Your task to perform on an android device: Open Chrome and go to settings Image 0: 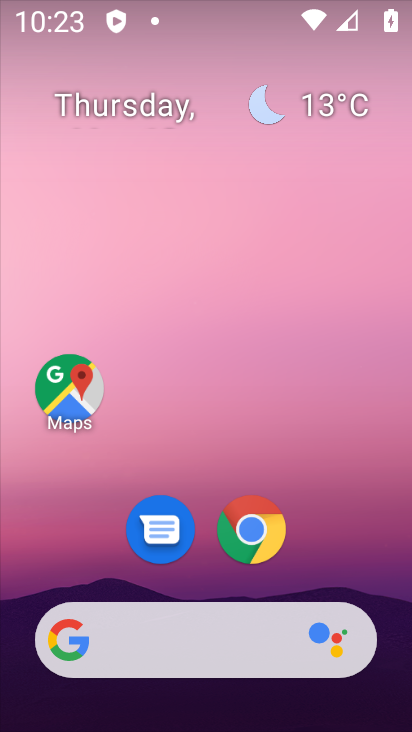
Step 0: click (252, 534)
Your task to perform on an android device: Open Chrome and go to settings Image 1: 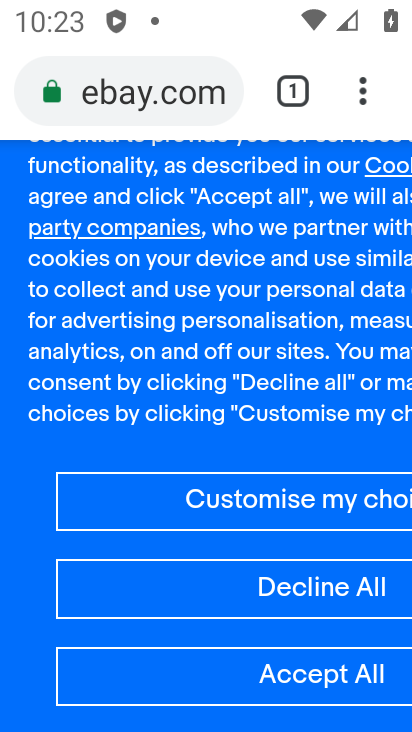
Step 1: click (364, 94)
Your task to perform on an android device: Open Chrome and go to settings Image 2: 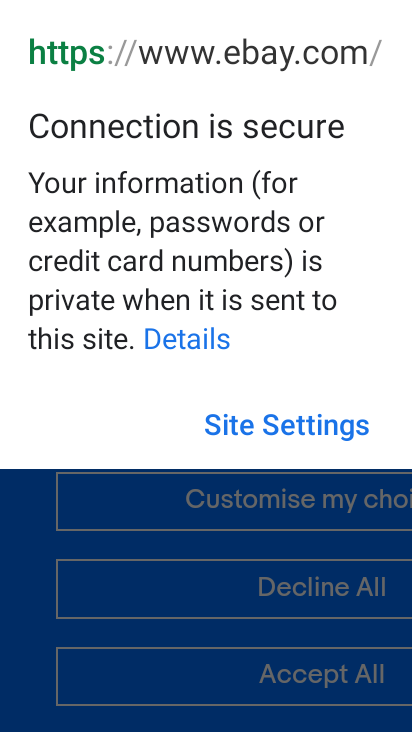
Step 2: click (222, 582)
Your task to perform on an android device: Open Chrome and go to settings Image 3: 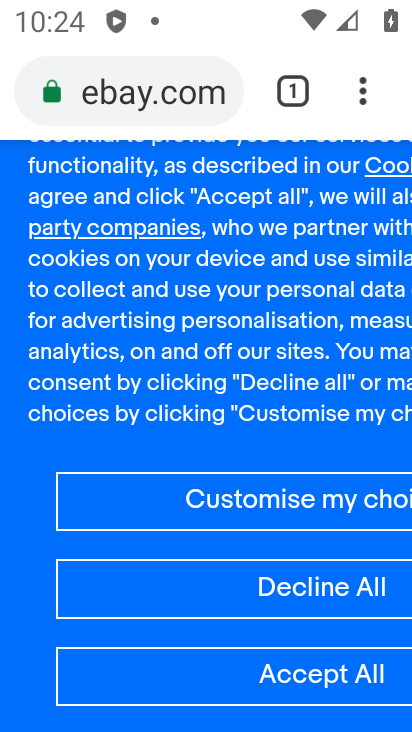
Step 3: click (354, 105)
Your task to perform on an android device: Open Chrome and go to settings Image 4: 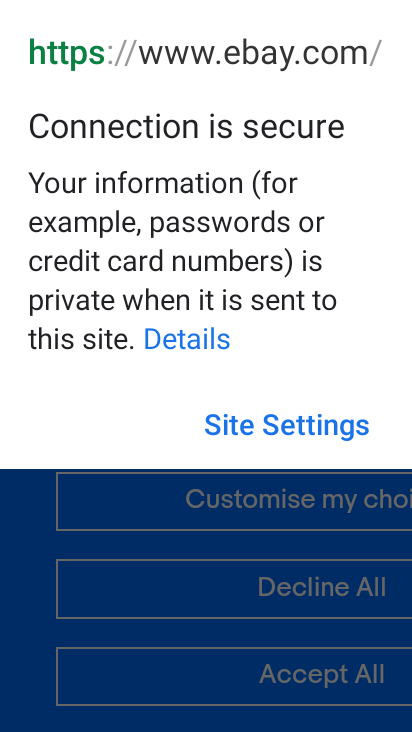
Step 4: click (162, 563)
Your task to perform on an android device: Open Chrome and go to settings Image 5: 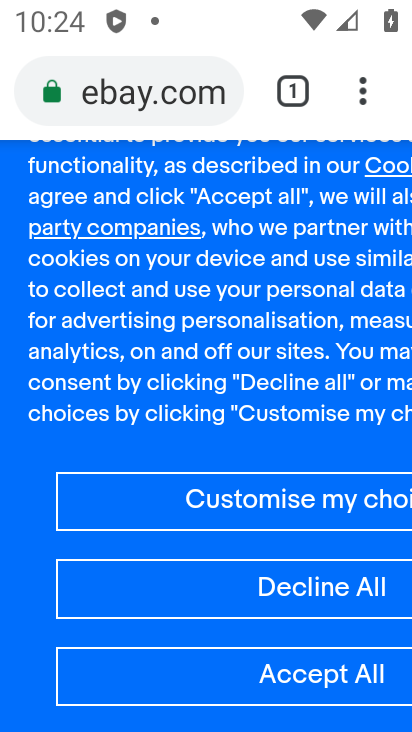
Step 5: click (357, 91)
Your task to perform on an android device: Open Chrome and go to settings Image 6: 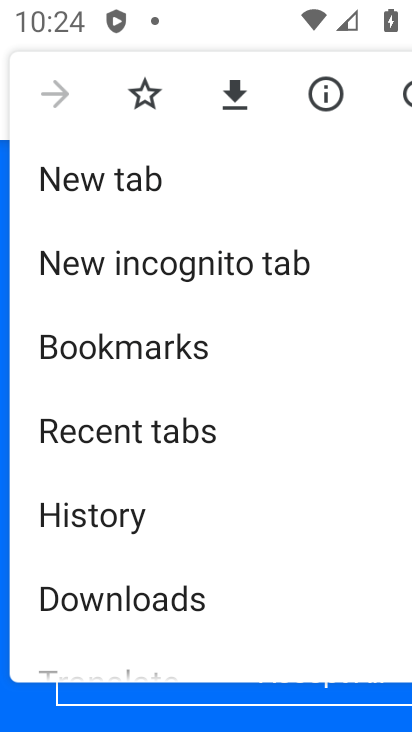
Step 6: drag from (169, 613) to (159, 531)
Your task to perform on an android device: Open Chrome and go to settings Image 7: 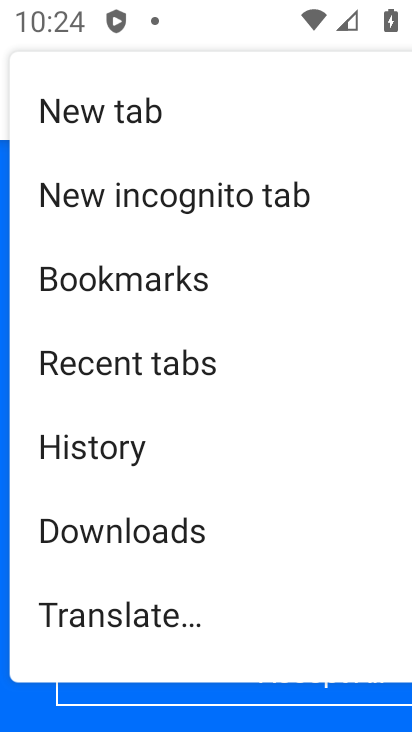
Step 7: drag from (141, 609) to (139, 542)
Your task to perform on an android device: Open Chrome and go to settings Image 8: 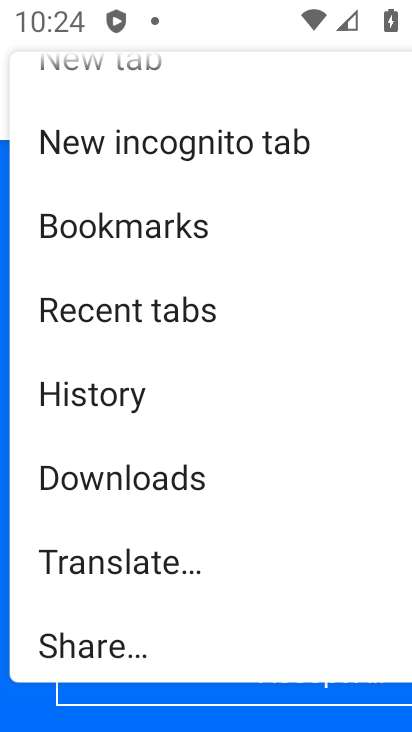
Step 8: drag from (127, 616) to (118, 528)
Your task to perform on an android device: Open Chrome and go to settings Image 9: 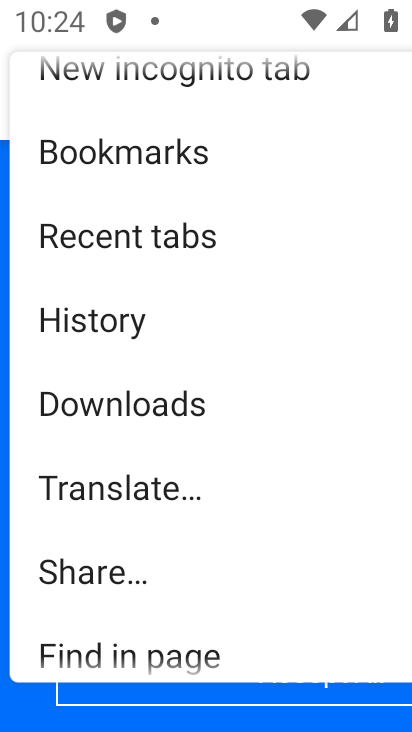
Step 9: drag from (131, 604) to (132, 520)
Your task to perform on an android device: Open Chrome and go to settings Image 10: 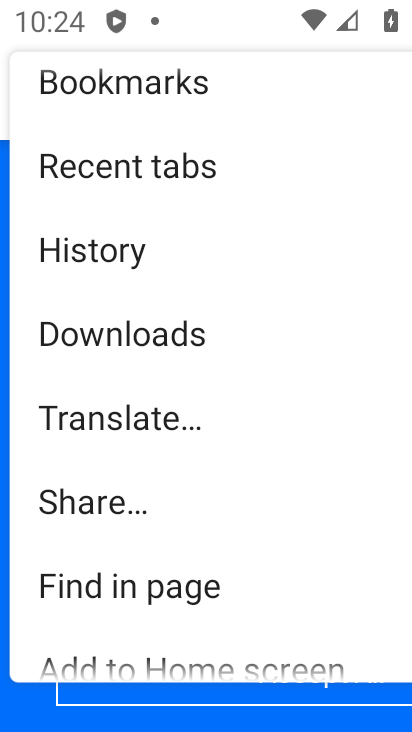
Step 10: drag from (150, 603) to (150, 526)
Your task to perform on an android device: Open Chrome and go to settings Image 11: 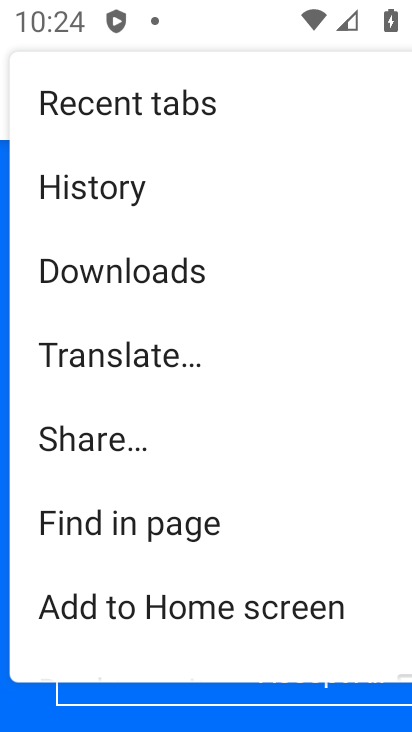
Step 11: drag from (152, 617) to (144, 552)
Your task to perform on an android device: Open Chrome and go to settings Image 12: 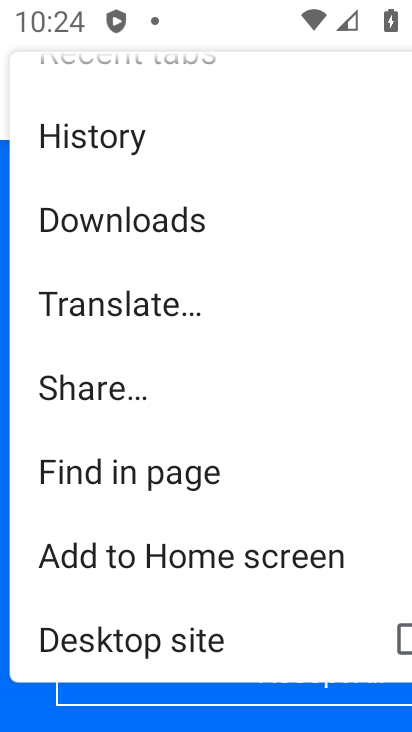
Step 12: drag from (156, 607) to (166, 501)
Your task to perform on an android device: Open Chrome and go to settings Image 13: 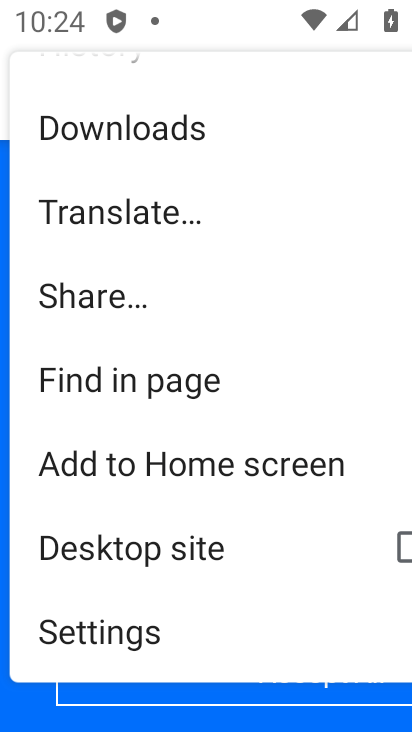
Step 13: drag from (154, 576) to (163, 464)
Your task to perform on an android device: Open Chrome and go to settings Image 14: 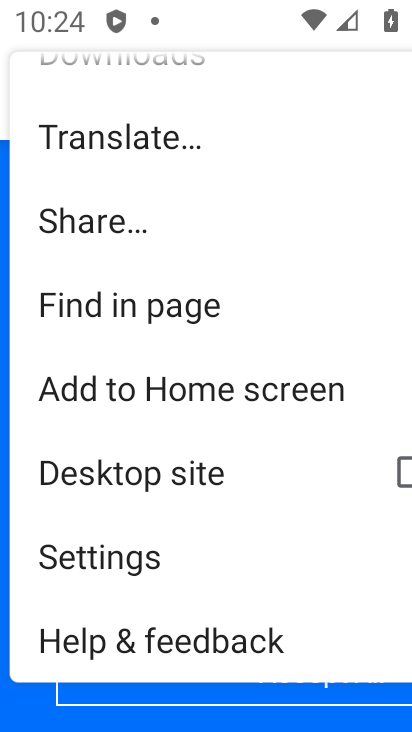
Step 14: click (165, 564)
Your task to perform on an android device: Open Chrome and go to settings Image 15: 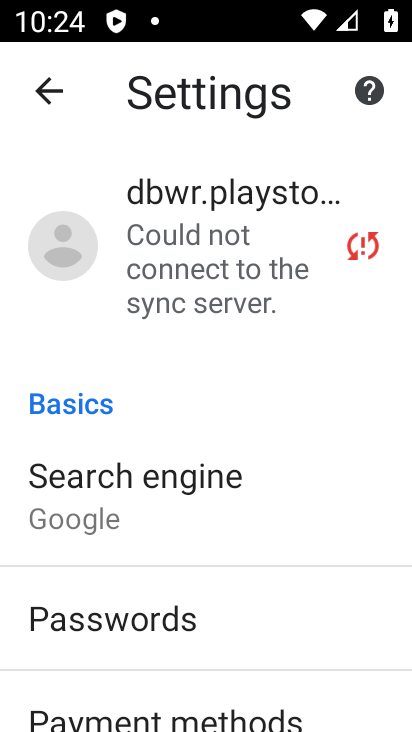
Step 15: task complete